Your task to perform on an android device: check the backup settings in the google photos Image 0: 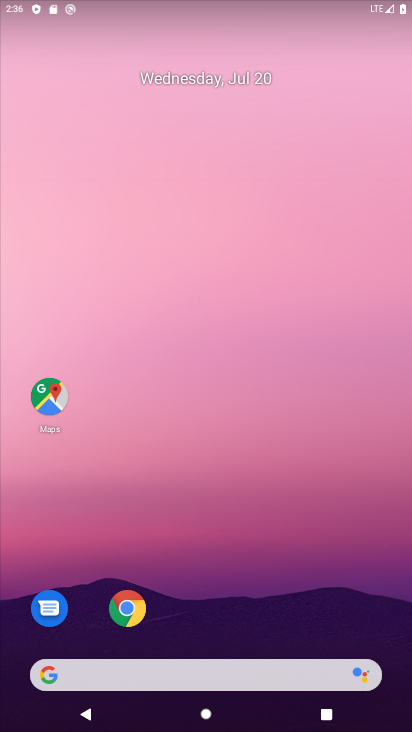
Step 0: drag from (202, 653) to (95, 56)
Your task to perform on an android device: check the backup settings in the google photos Image 1: 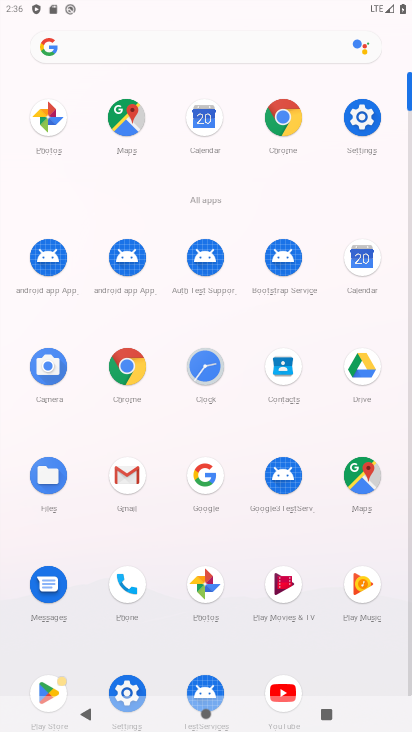
Step 1: click (208, 569)
Your task to perform on an android device: check the backup settings in the google photos Image 2: 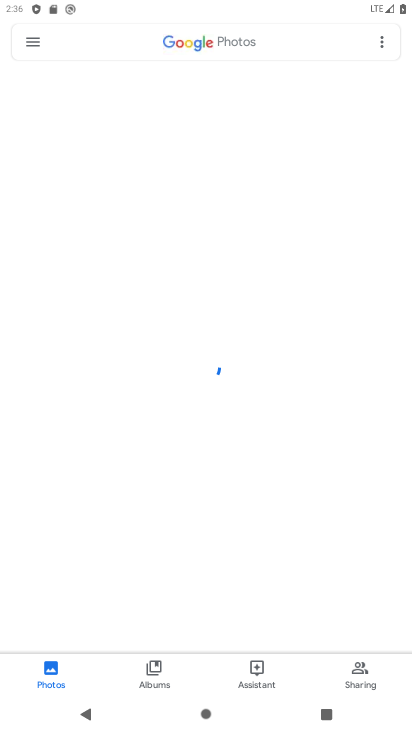
Step 2: click (37, 44)
Your task to perform on an android device: check the backup settings in the google photos Image 3: 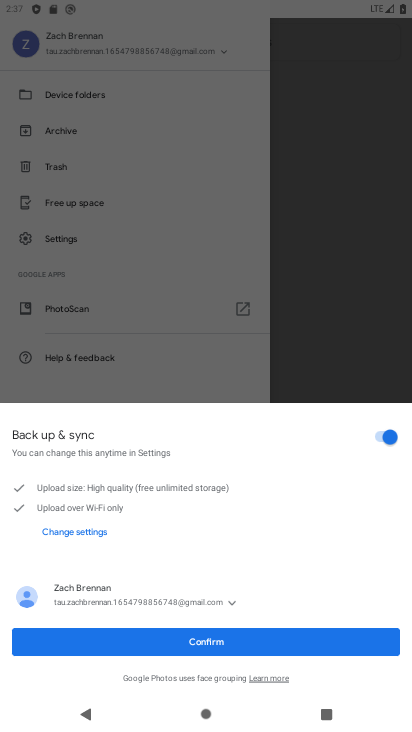
Step 3: click (196, 634)
Your task to perform on an android device: check the backup settings in the google photos Image 4: 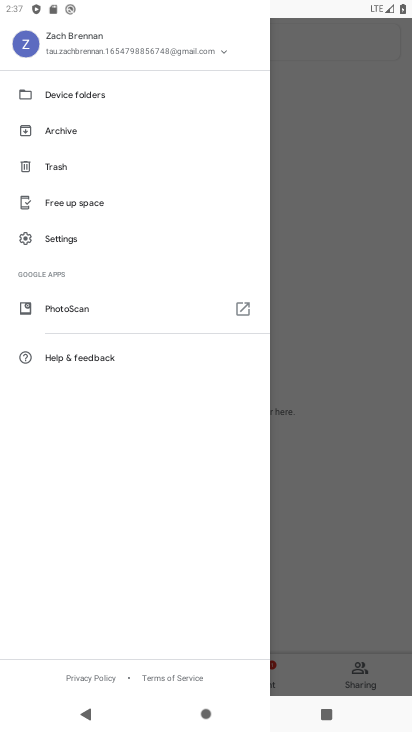
Step 4: click (217, 50)
Your task to perform on an android device: check the backup settings in the google photos Image 5: 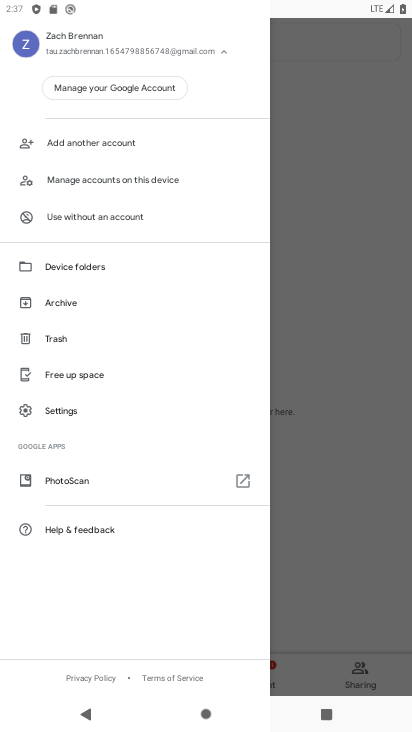
Step 5: click (50, 415)
Your task to perform on an android device: check the backup settings in the google photos Image 6: 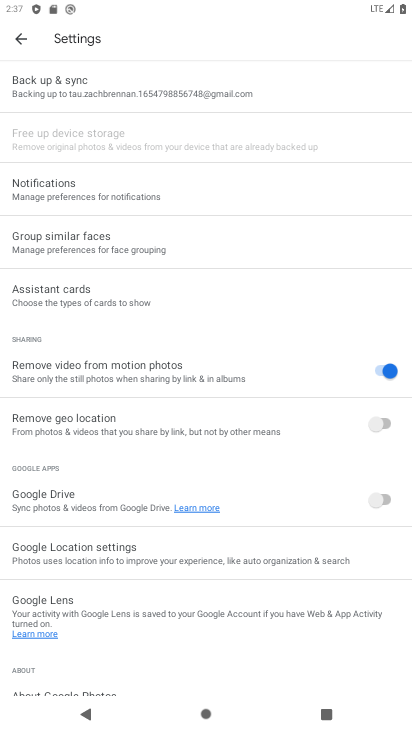
Step 6: click (33, 79)
Your task to perform on an android device: check the backup settings in the google photos Image 7: 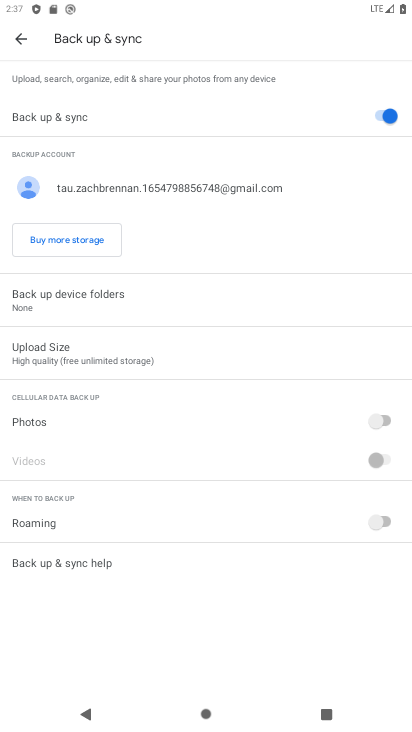
Step 7: task complete